Your task to perform on an android device: toggle javascript in the chrome app Image 0: 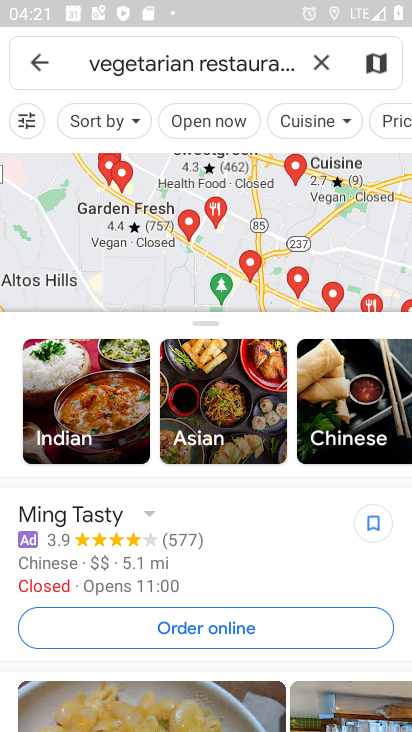
Step 0: press home button
Your task to perform on an android device: toggle javascript in the chrome app Image 1: 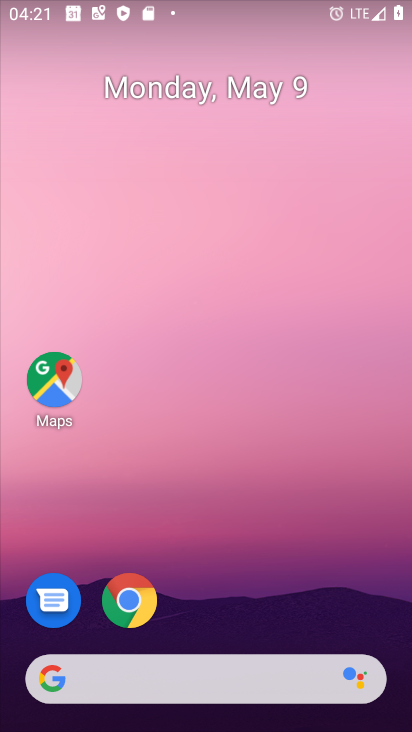
Step 1: drag from (344, 686) to (264, 160)
Your task to perform on an android device: toggle javascript in the chrome app Image 2: 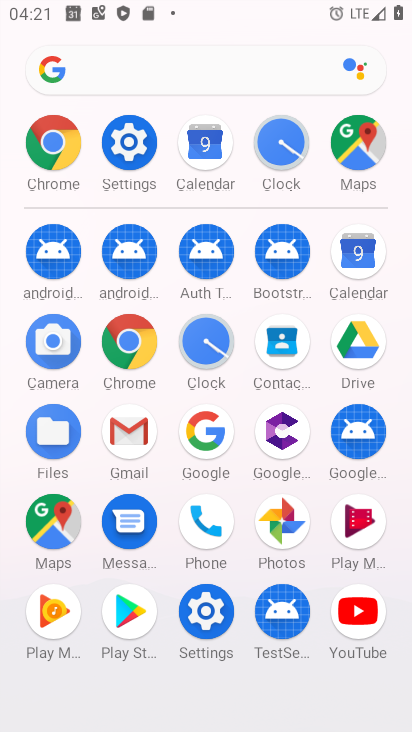
Step 2: click (134, 349)
Your task to perform on an android device: toggle javascript in the chrome app Image 3: 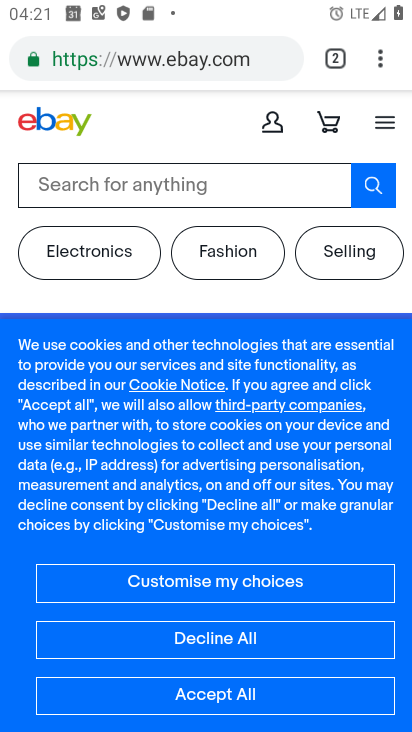
Step 3: drag from (378, 65) to (219, 637)
Your task to perform on an android device: toggle javascript in the chrome app Image 4: 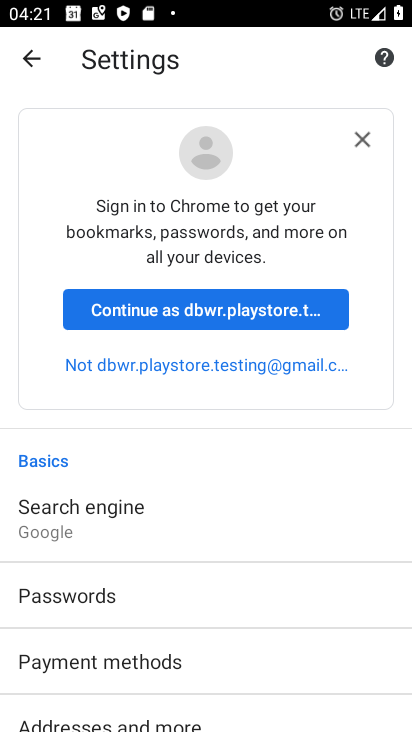
Step 4: drag from (123, 708) to (99, 408)
Your task to perform on an android device: toggle javascript in the chrome app Image 5: 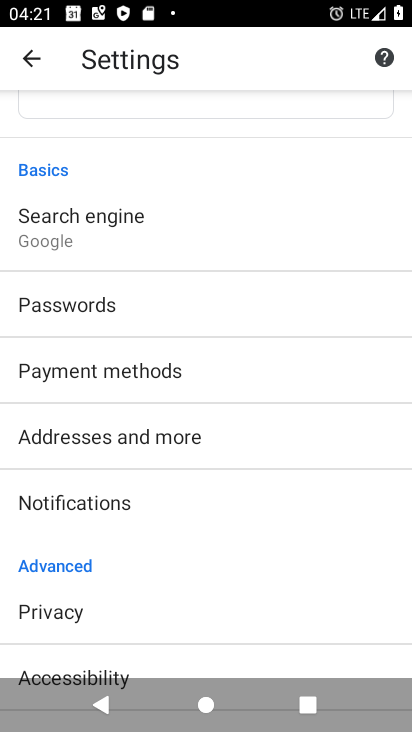
Step 5: drag from (100, 665) to (96, 472)
Your task to perform on an android device: toggle javascript in the chrome app Image 6: 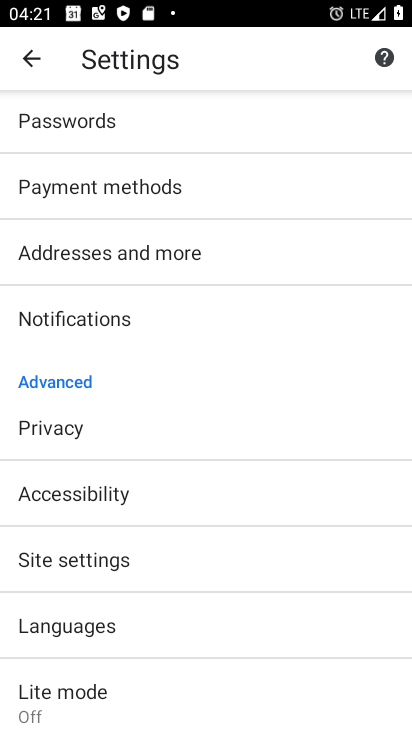
Step 6: click (113, 569)
Your task to perform on an android device: toggle javascript in the chrome app Image 7: 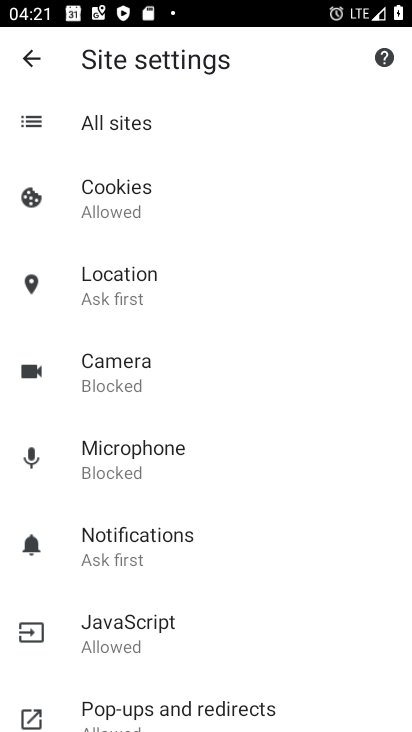
Step 7: click (128, 642)
Your task to perform on an android device: toggle javascript in the chrome app Image 8: 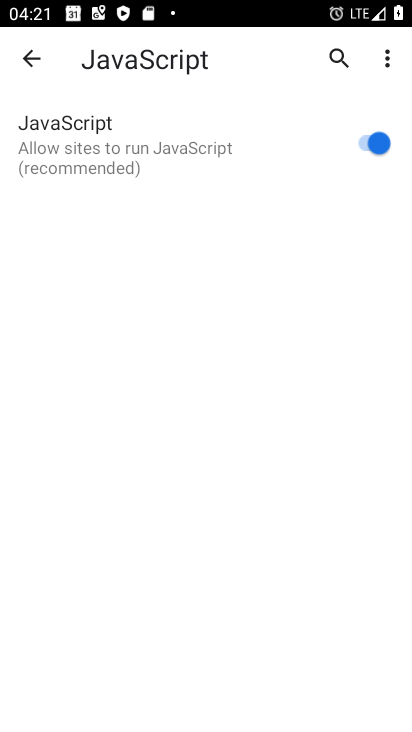
Step 8: click (366, 134)
Your task to perform on an android device: toggle javascript in the chrome app Image 9: 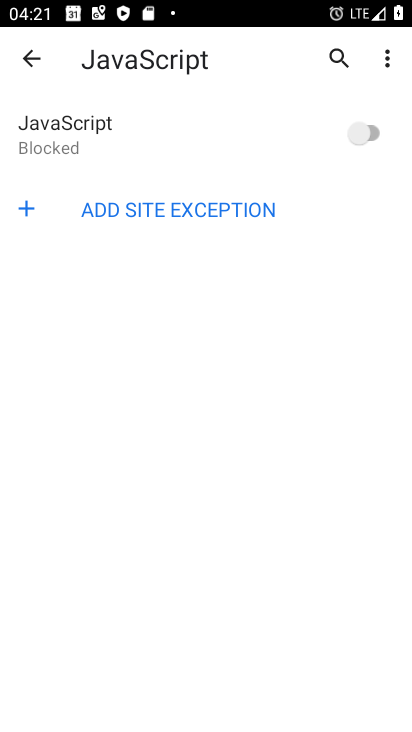
Step 9: task complete